Your task to perform on an android device: open app "Indeed Job Search" Image 0: 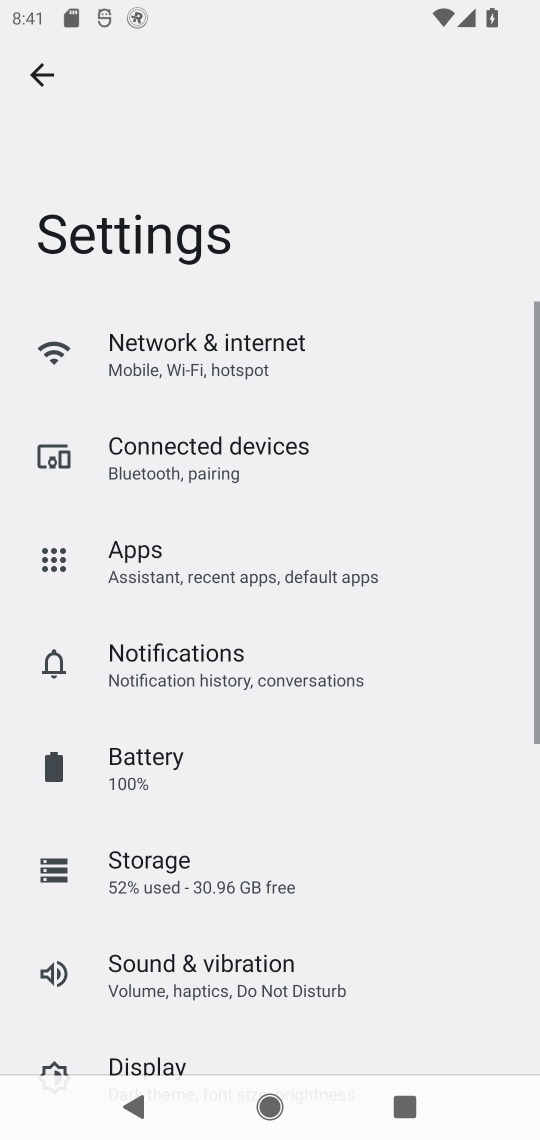
Step 0: press home button
Your task to perform on an android device: open app "Indeed Job Search" Image 1: 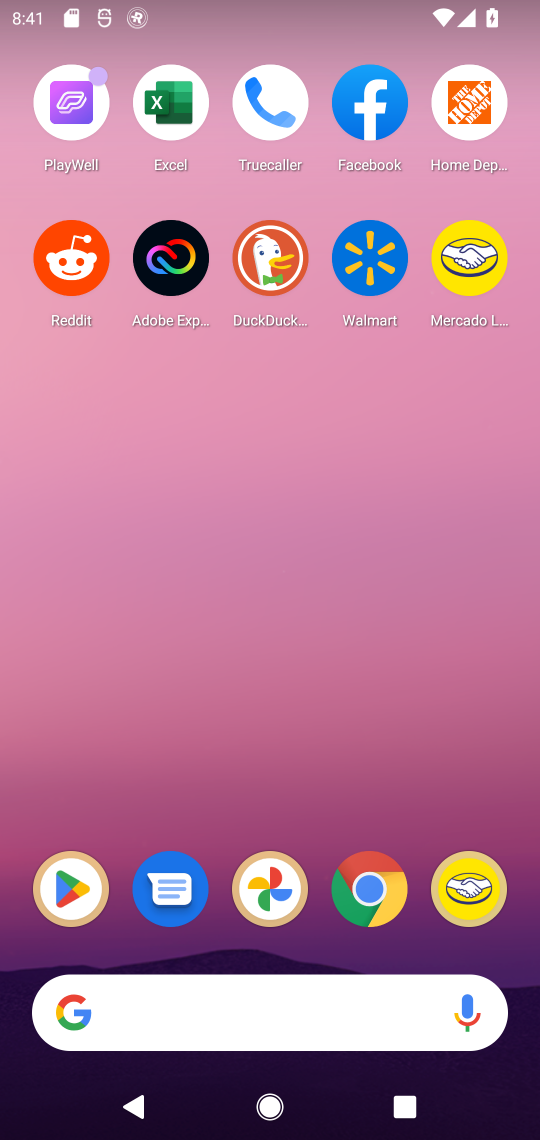
Step 1: press home button
Your task to perform on an android device: open app "Indeed Job Search" Image 2: 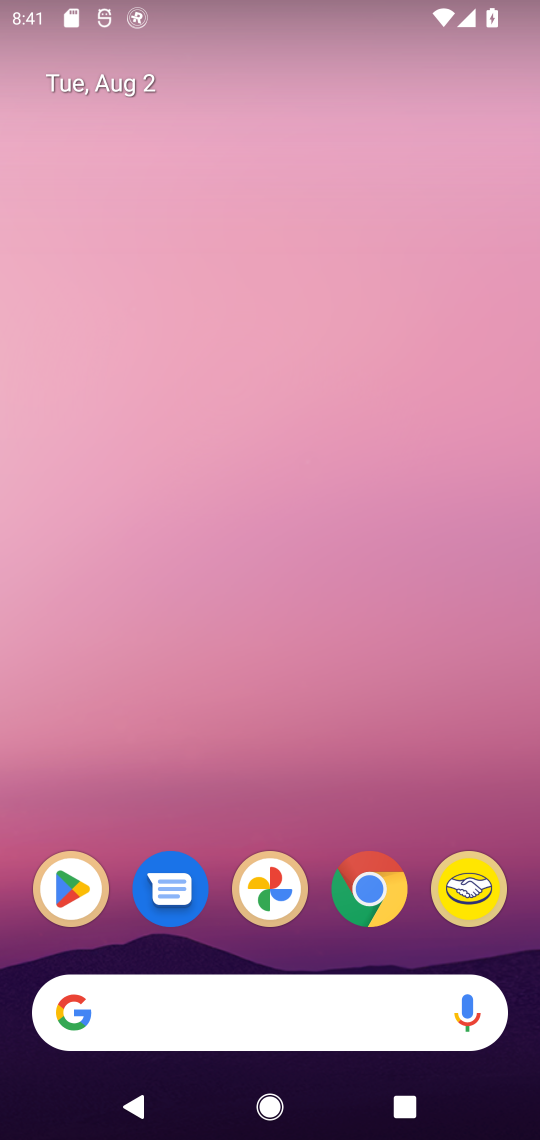
Step 2: click (66, 897)
Your task to perform on an android device: open app "Indeed Job Search" Image 3: 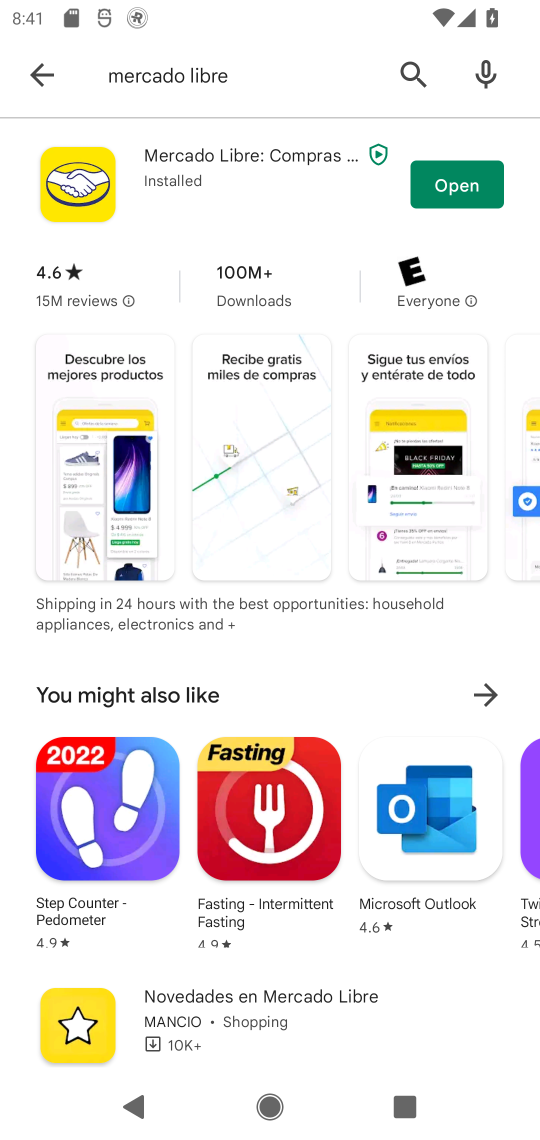
Step 3: click (410, 64)
Your task to perform on an android device: open app "Indeed Job Search" Image 4: 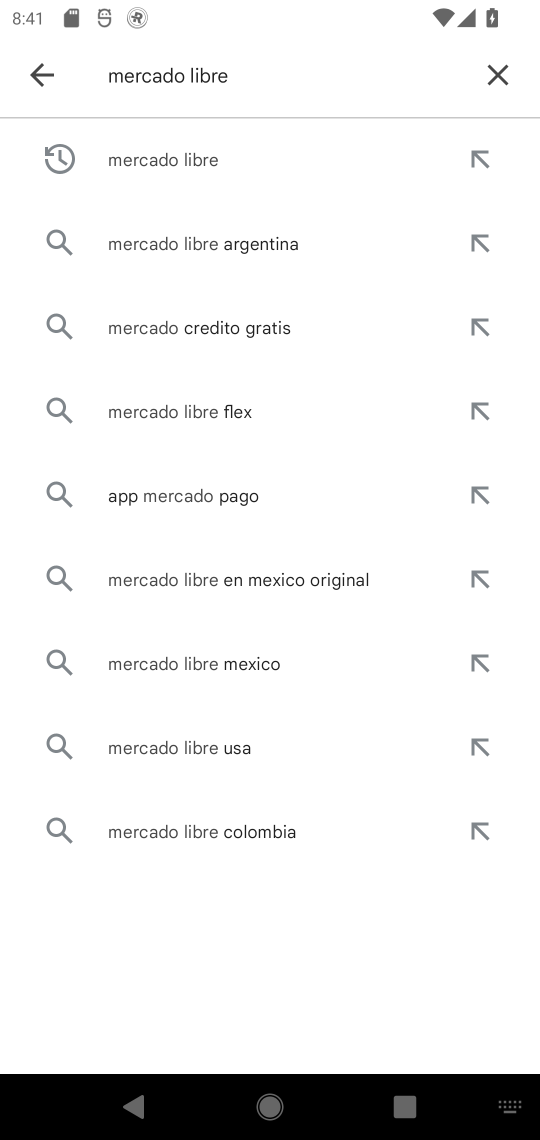
Step 4: click (501, 80)
Your task to perform on an android device: open app "Indeed Job Search" Image 5: 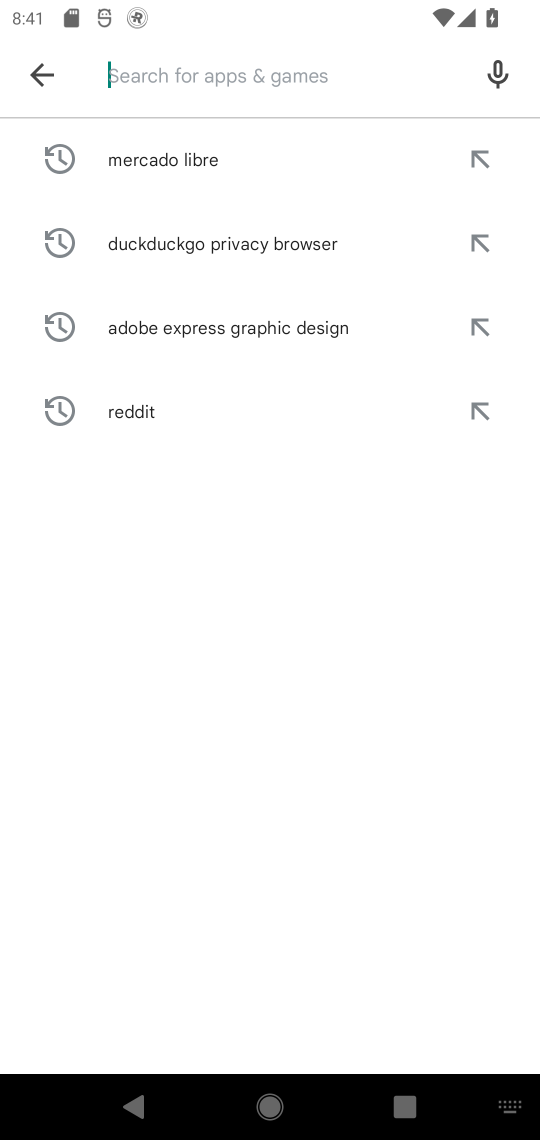
Step 5: type "Indeed Job Search"
Your task to perform on an android device: open app "Indeed Job Search" Image 6: 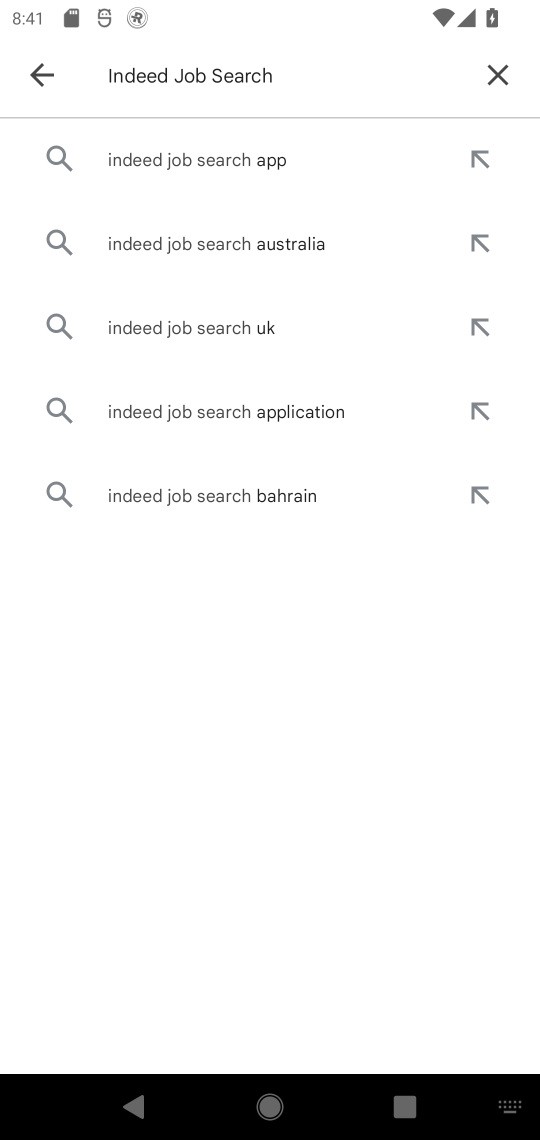
Step 6: click (227, 160)
Your task to perform on an android device: open app "Indeed Job Search" Image 7: 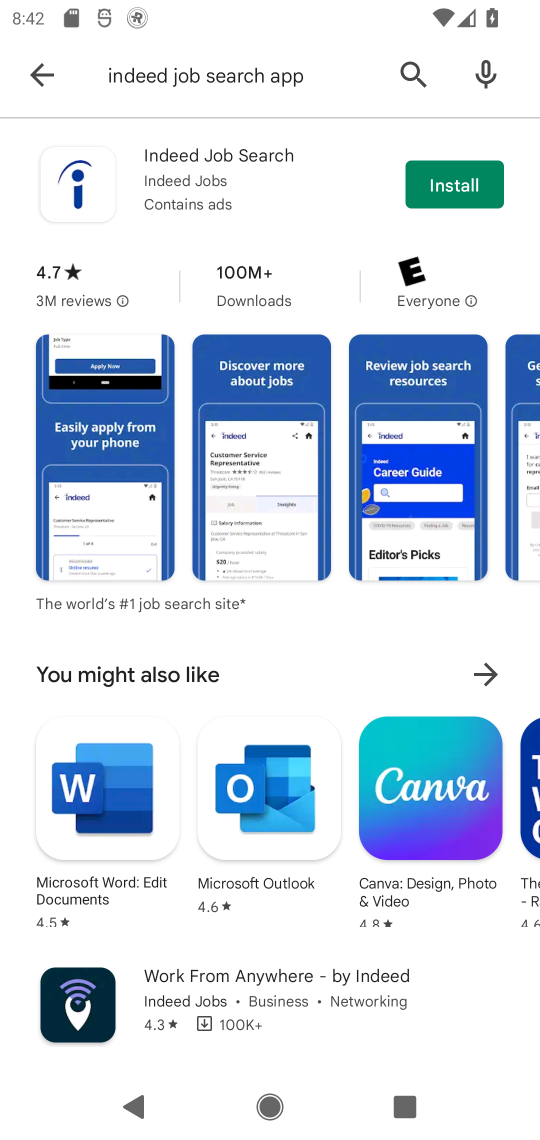
Step 7: task complete